Your task to perform on an android device: snooze an email in the gmail app Image 0: 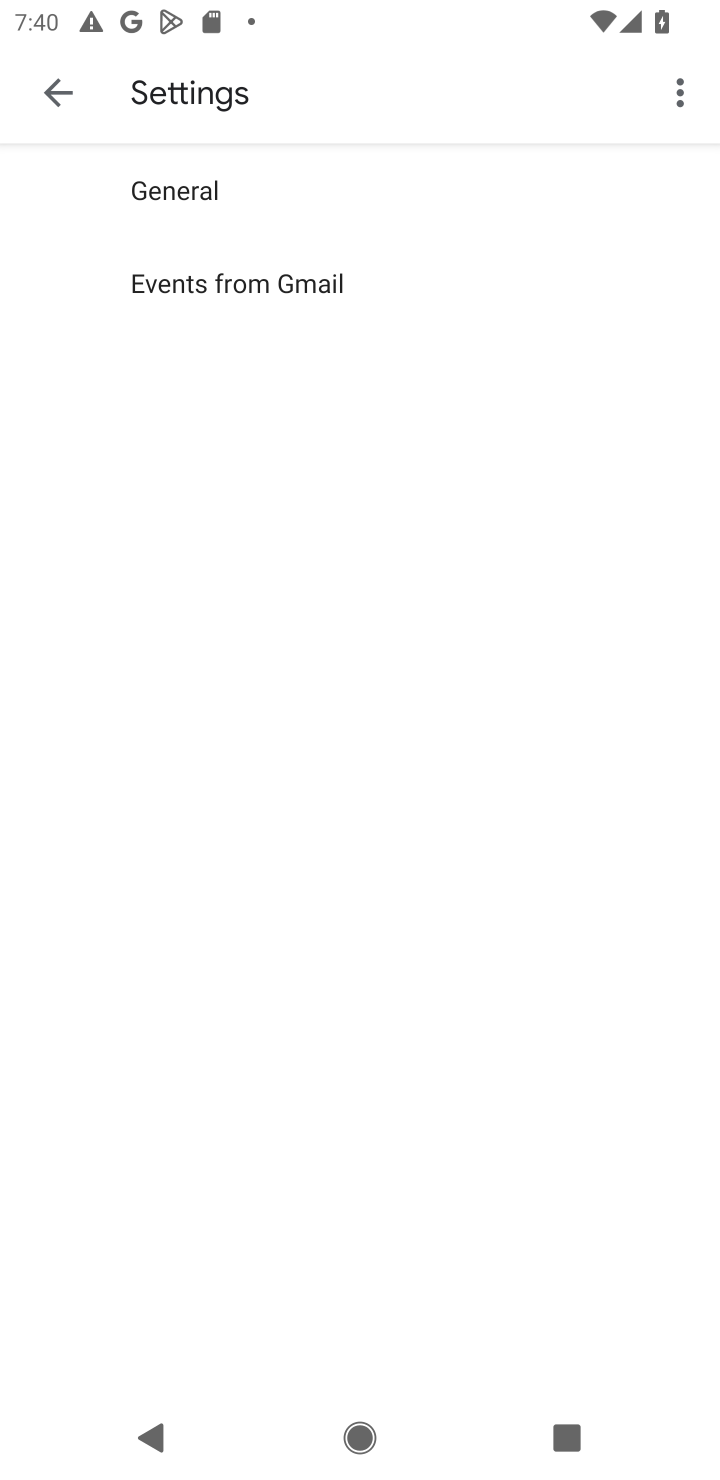
Step 0: press home button
Your task to perform on an android device: snooze an email in the gmail app Image 1: 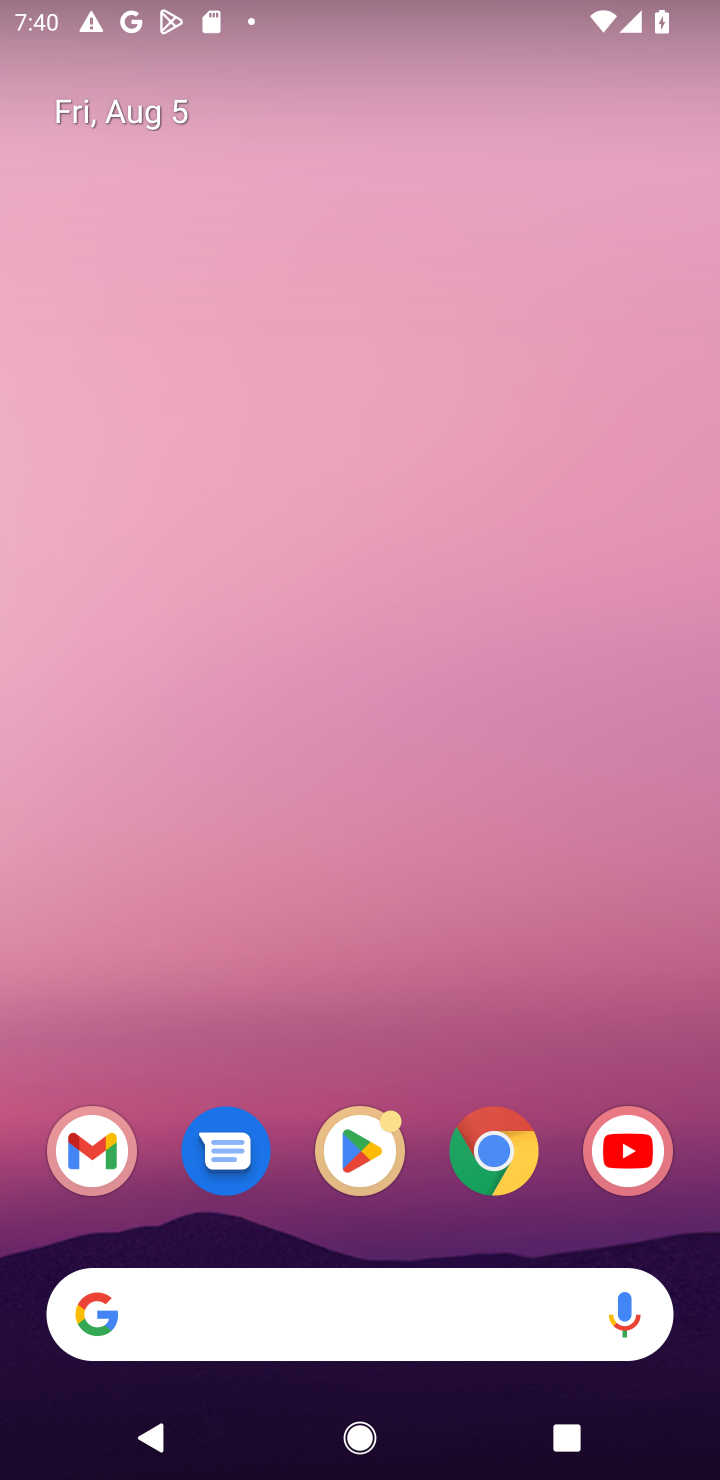
Step 1: click (91, 1145)
Your task to perform on an android device: snooze an email in the gmail app Image 2: 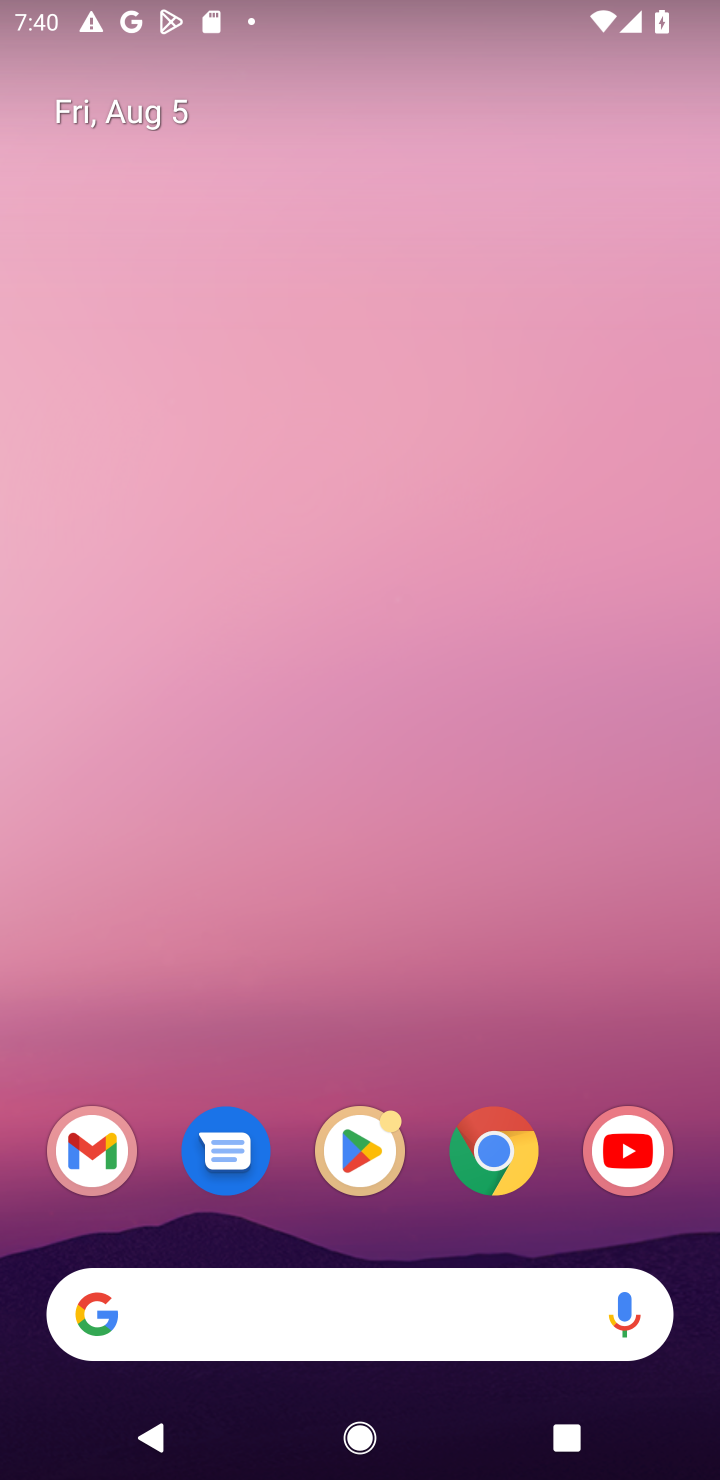
Step 2: click (108, 1160)
Your task to perform on an android device: snooze an email in the gmail app Image 3: 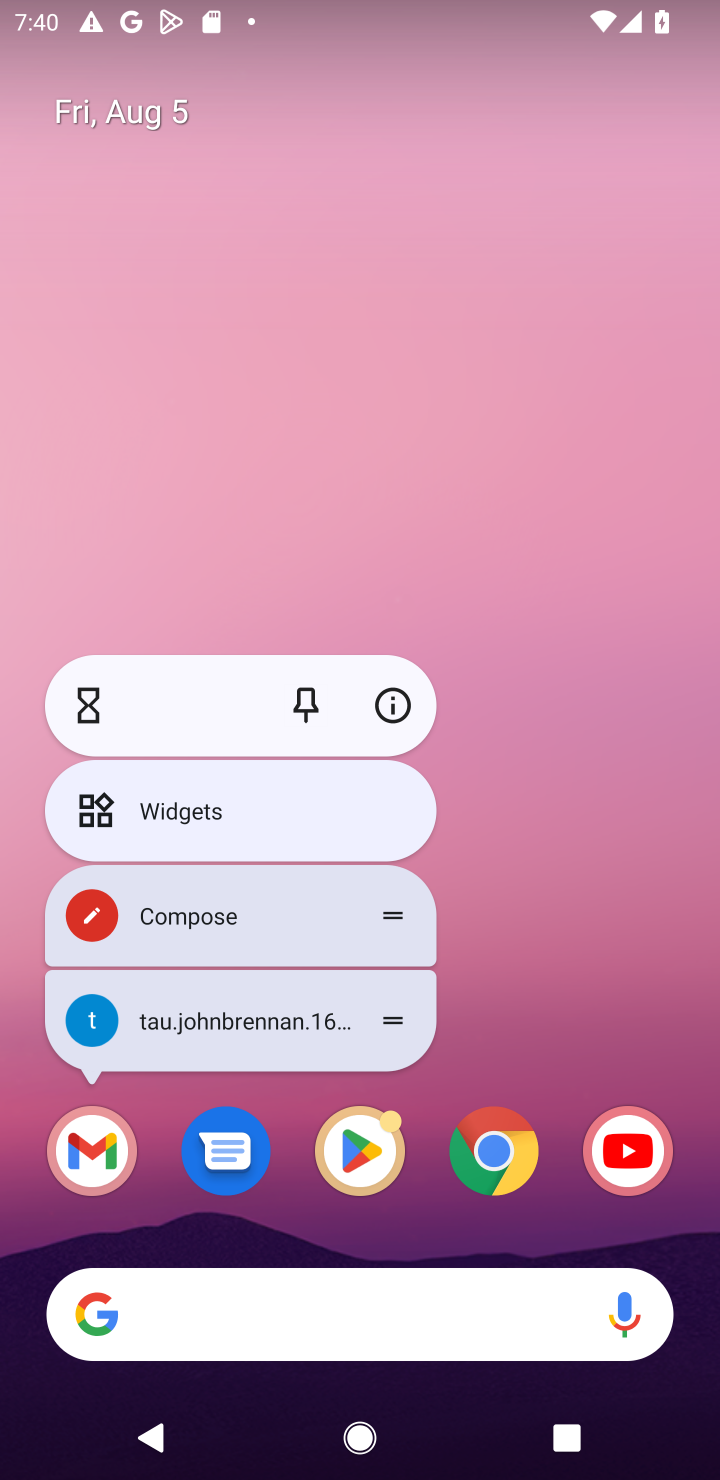
Step 3: click (97, 1182)
Your task to perform on an android device: snooze an email in the gmail app Image 4: 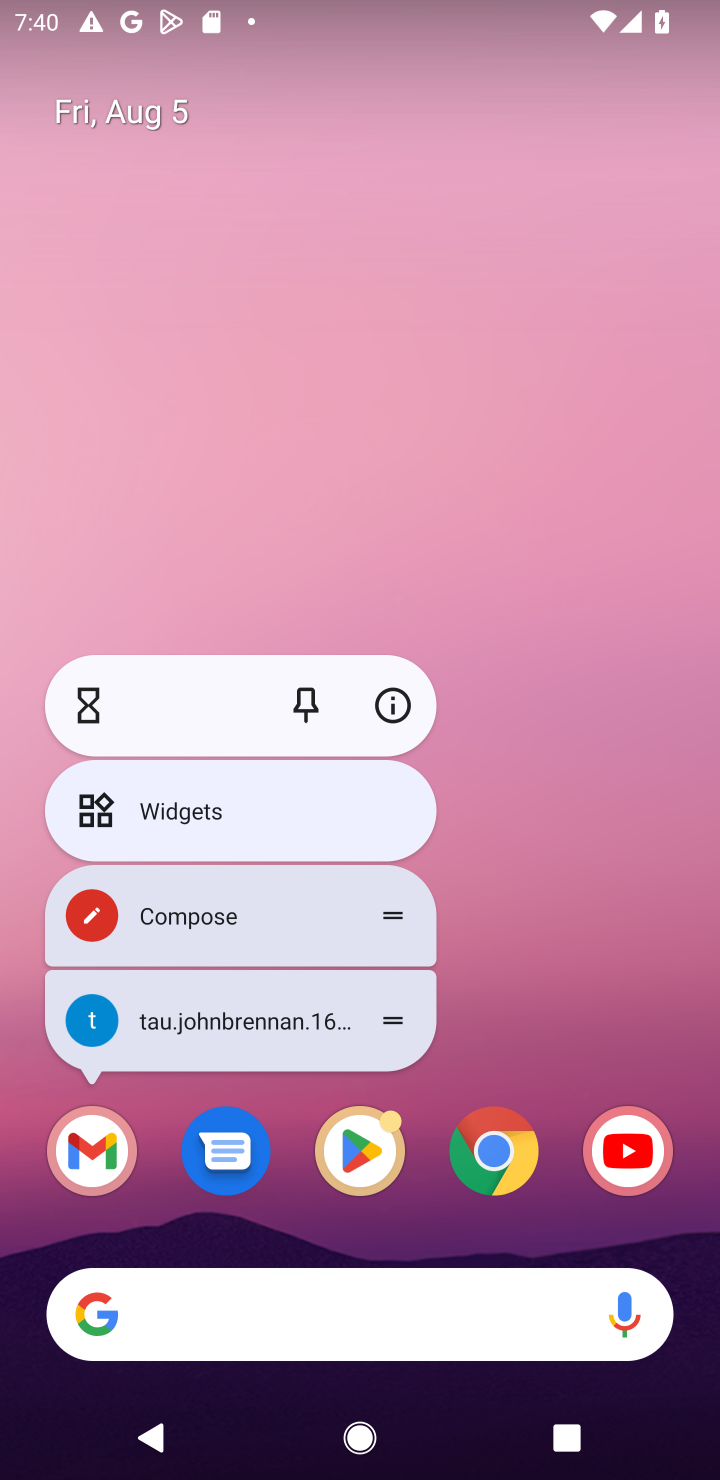
Step 4: click (97, 1182)
Your task to perform on an android device: snooze an email in the gmail app Image 5: 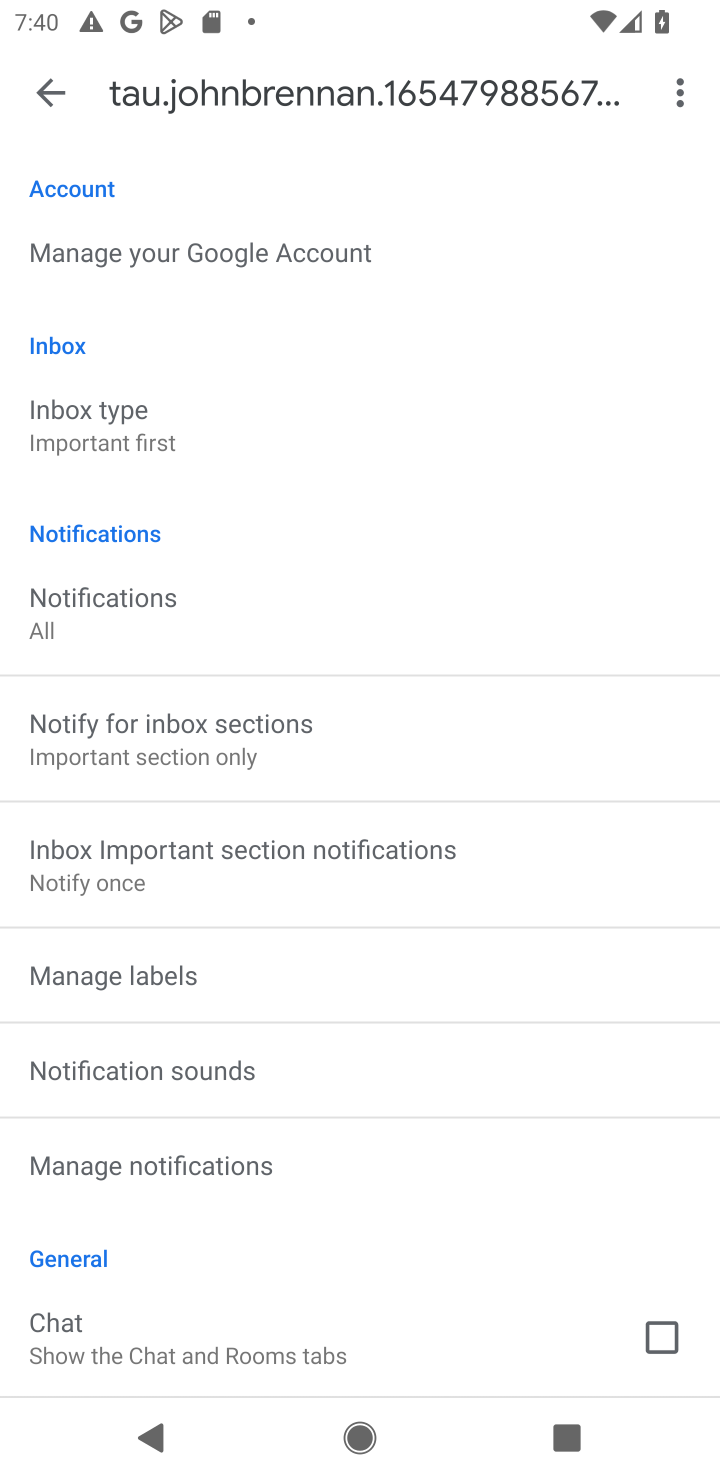
Step 5: click (51, 75)
Your task to perform on an android device: snooze an email in the gmail app Image 6: 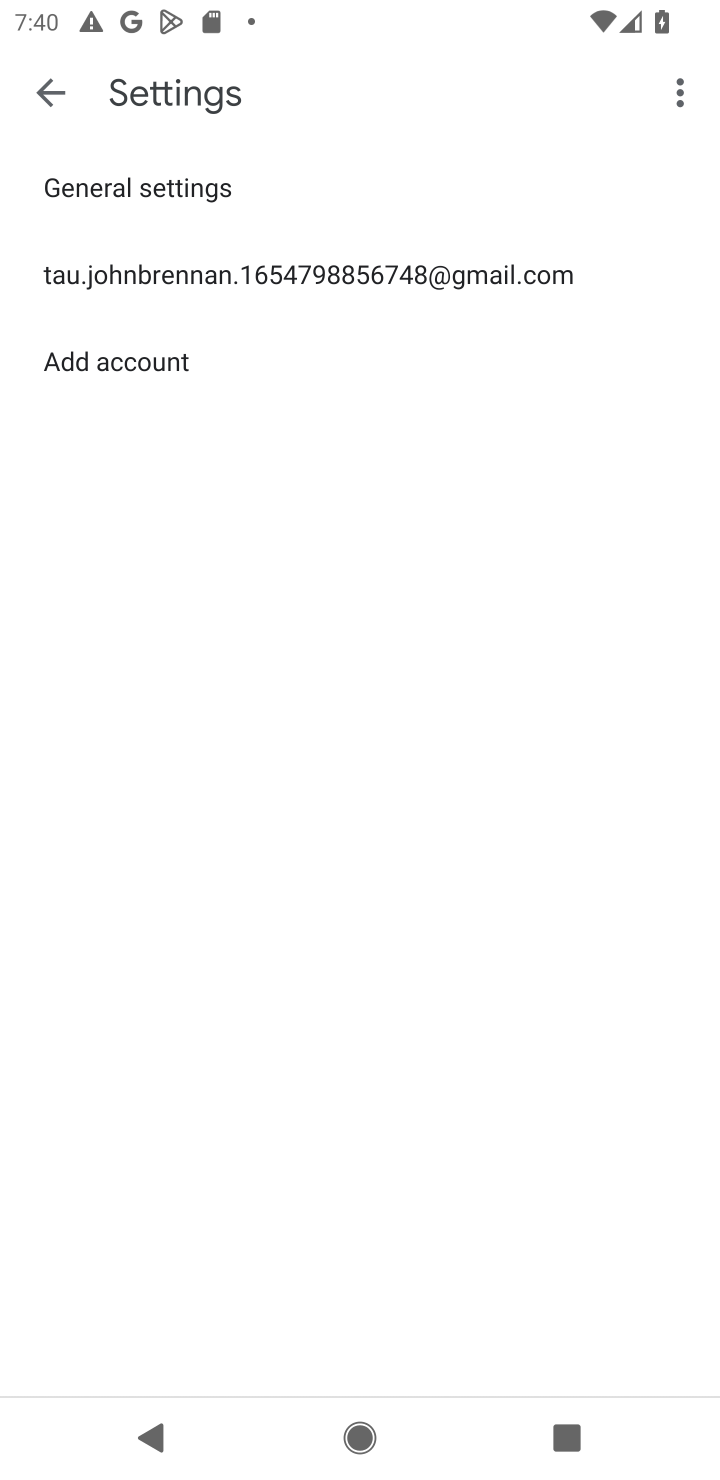
Step 6: click (63, 64)
Your task to perform on an android device: snooze an email in the gmail app Image 7: 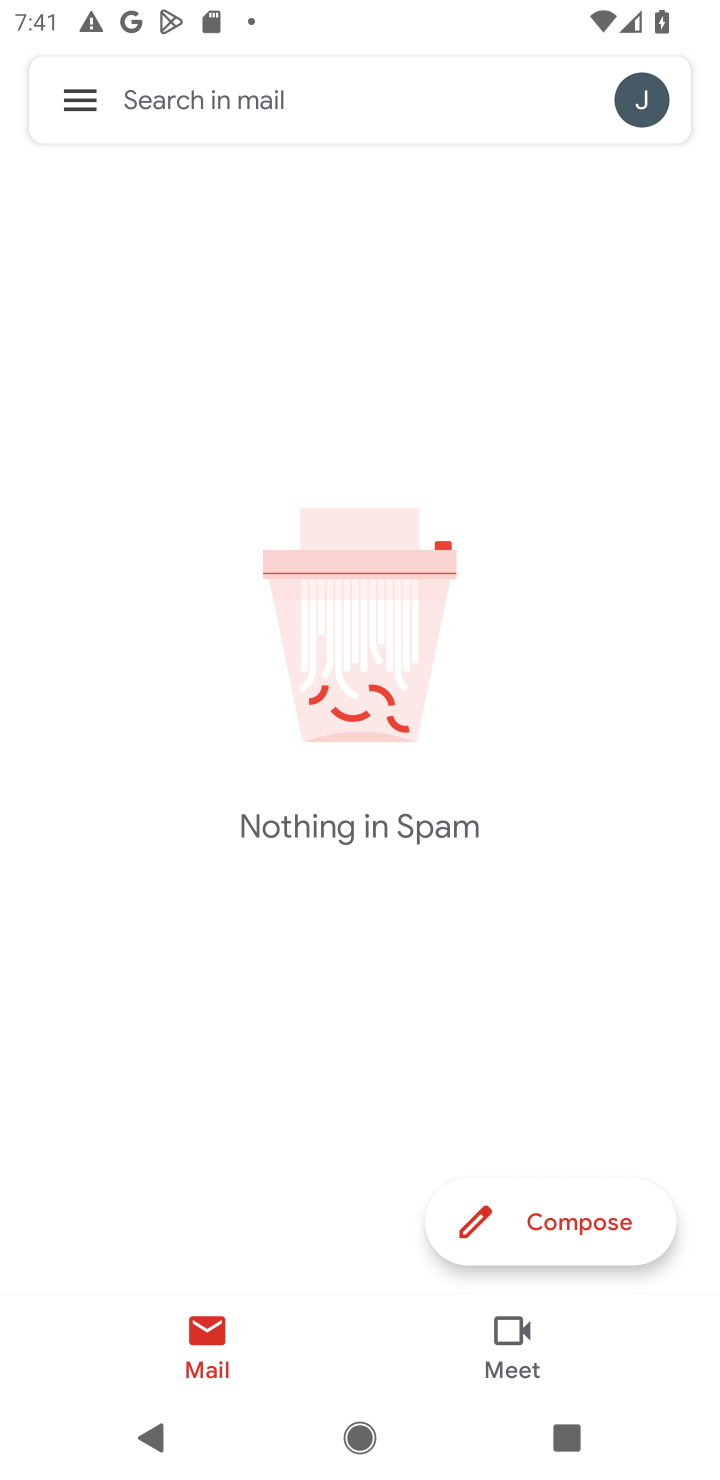
Step 7: click (82, 80)
Your task to perform on an android device: snooze an email in the gmail app Image 8: 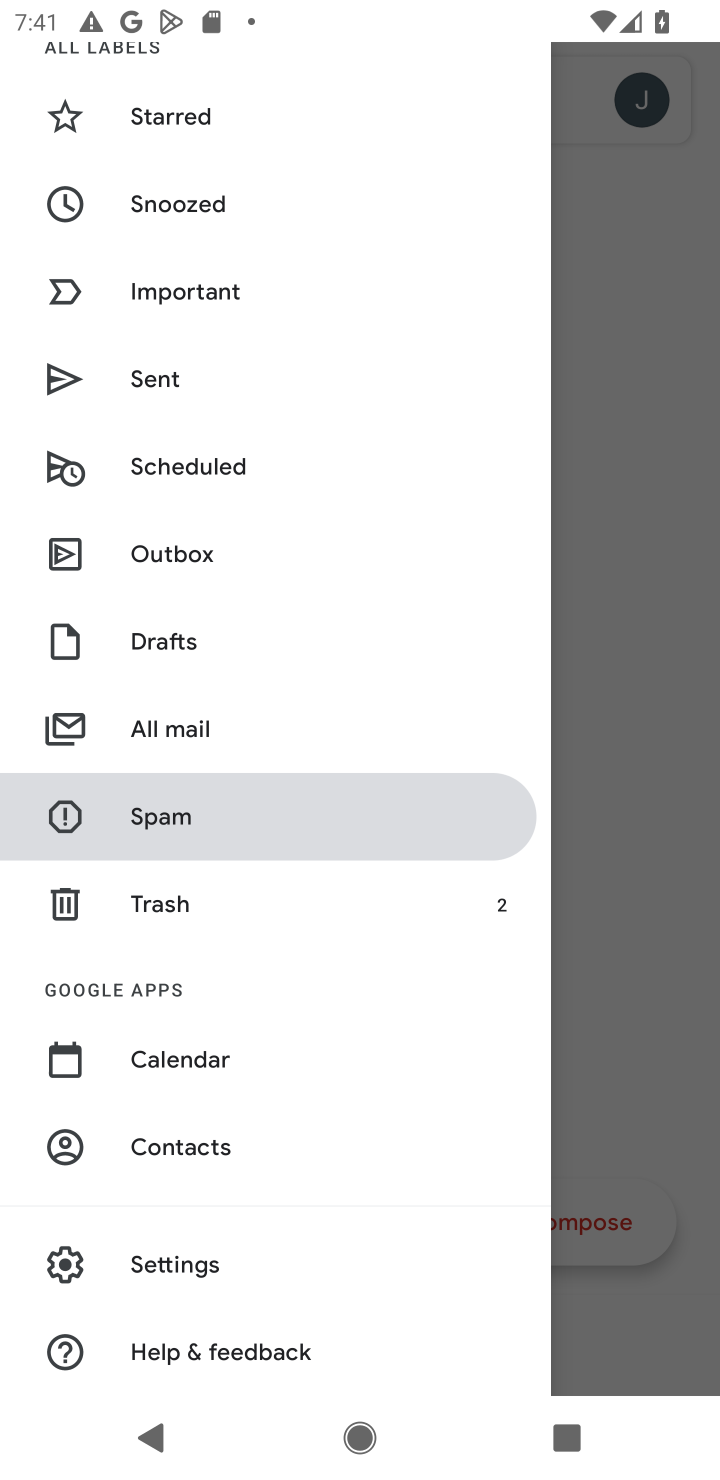
Step 8: drag from (200, 252) to (246, 1176)
Your task to perform on an android device: snooze an email in the gmail app Image 9: 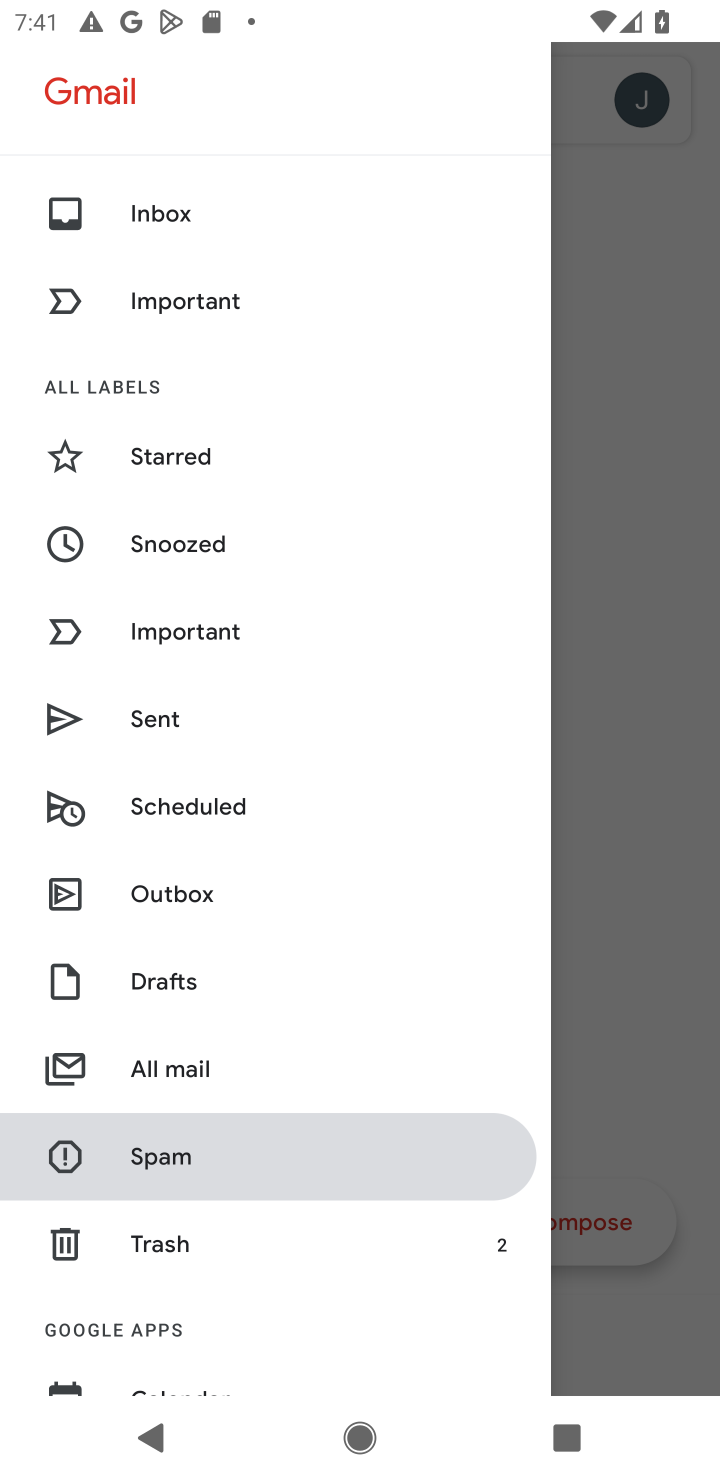
Step 9: click (174, 202)
Your task to perform on an android device: snooze an email in the gmail app Image 10: 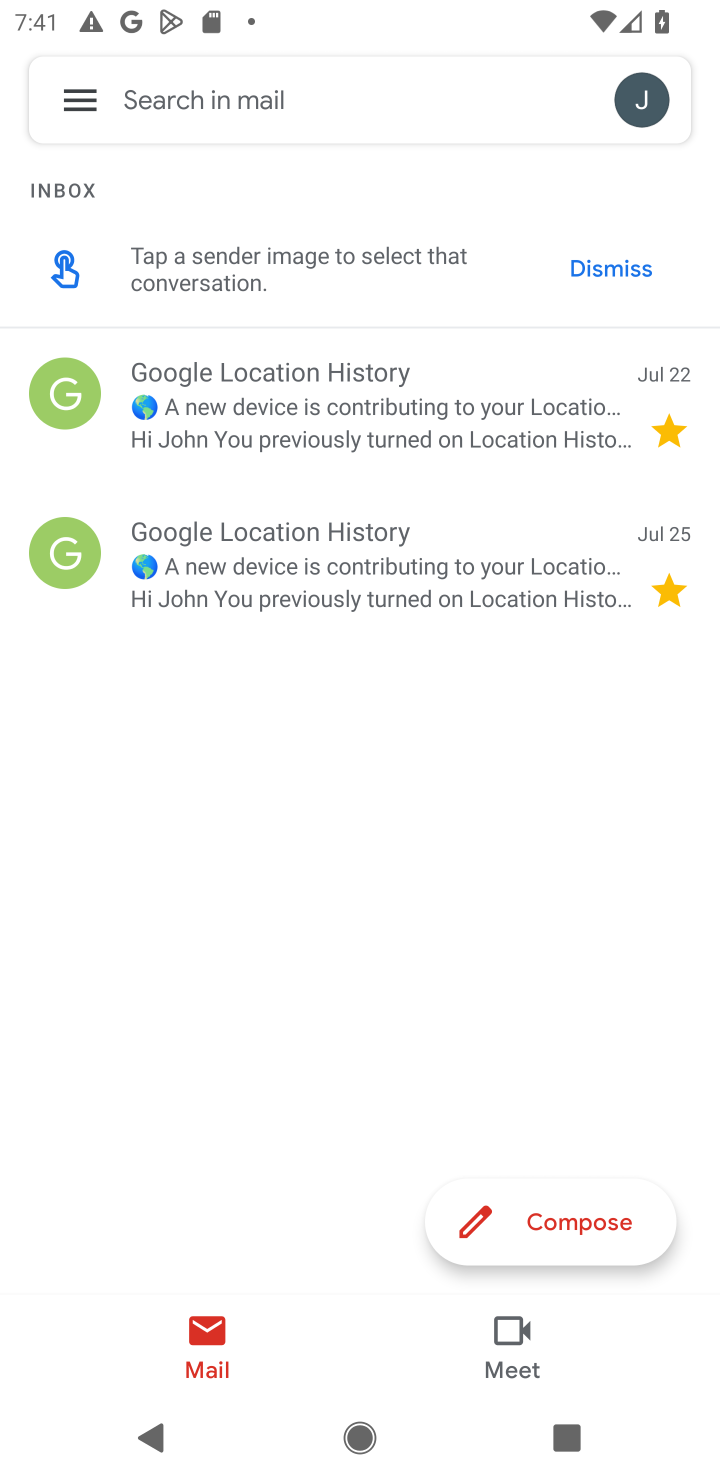
Step 10: click (48, 411)
Your task to perform on an android device: snooze an email in the gmail app Image 11: 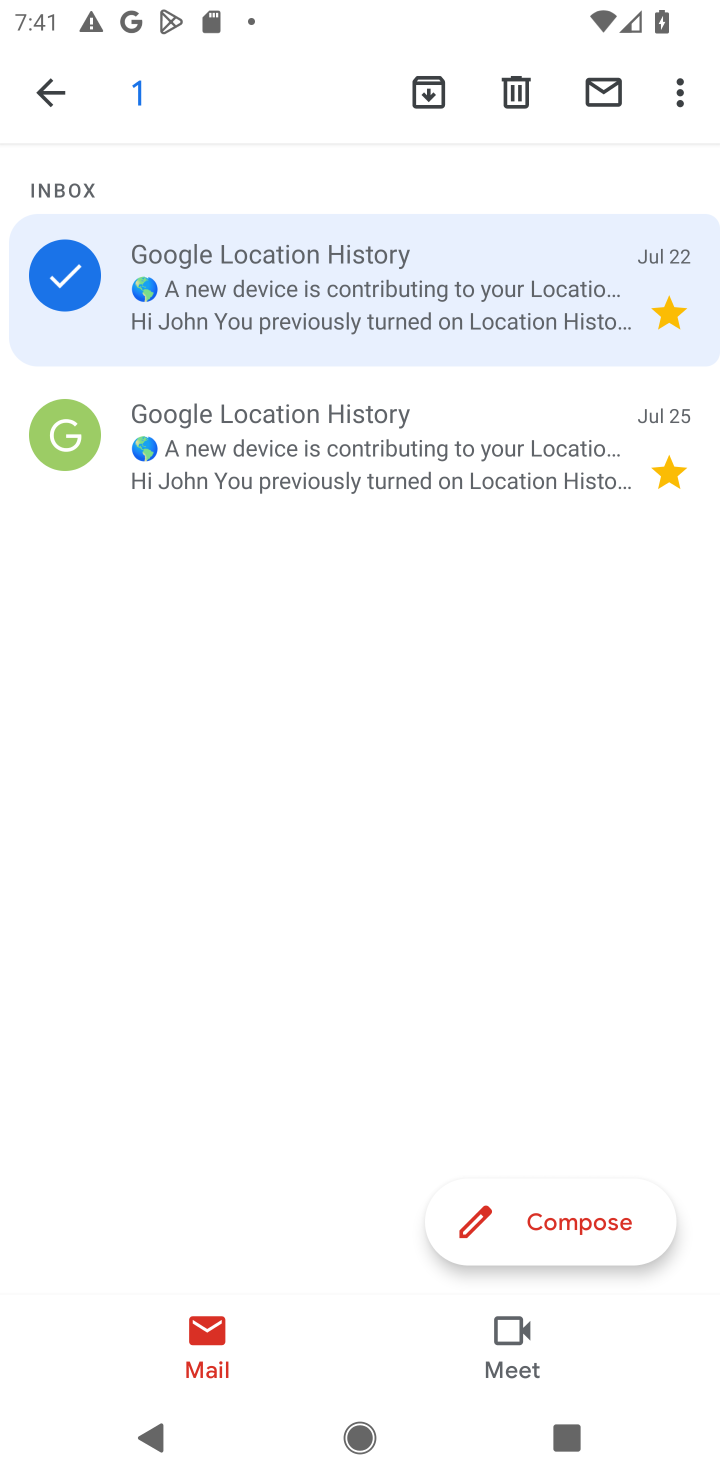
Step 11: click (692, 90)
Your task to perform on an android device: snooze an email in the gmail app Image 12: 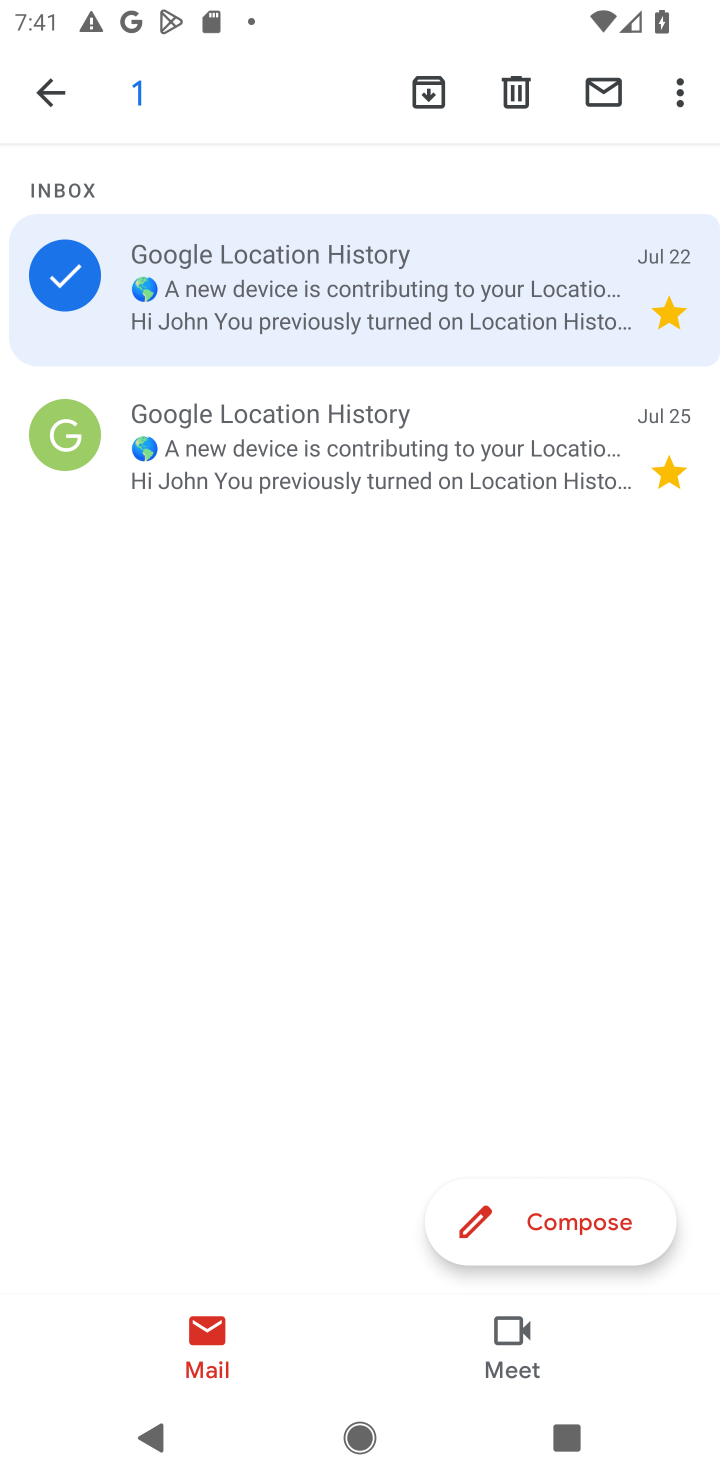
Step 12: click (677, 93)
Your task to perform on an android device: snooze an email in the gmail app Image 13: 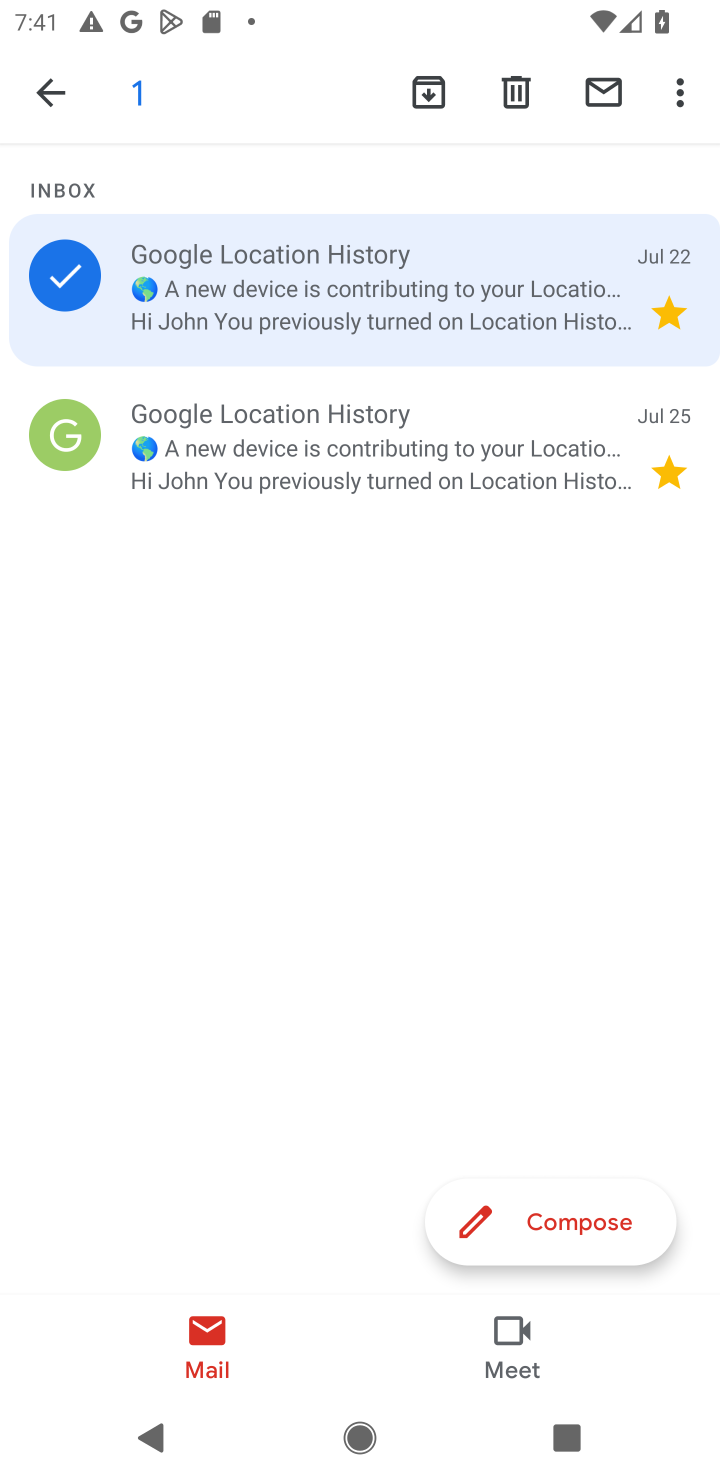
Step 13: click (662, 104)
Your task to perform on an android device: snooze an email in the gmail app Image 14: 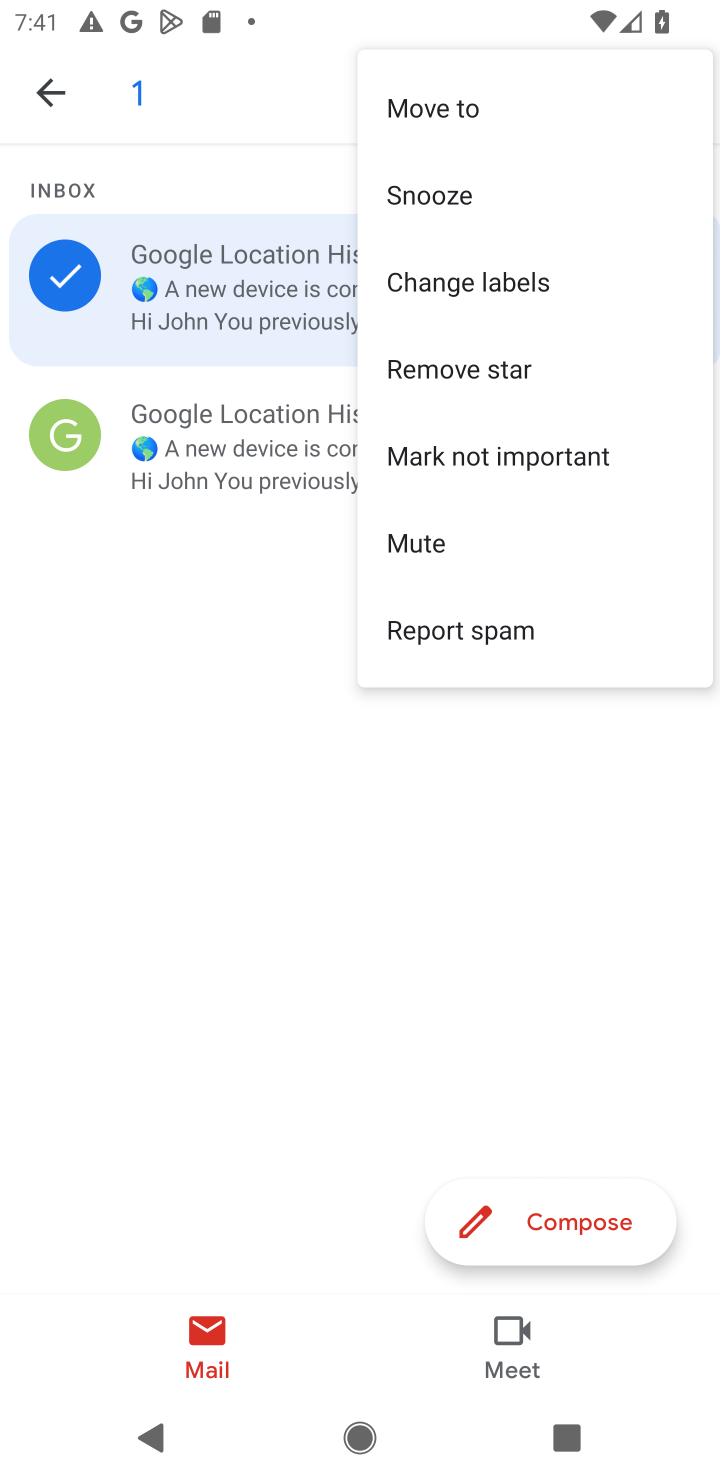
Step 14: click (430, 206)
Your task to perform on an android device: snooze an email in the gmail app Image 15: 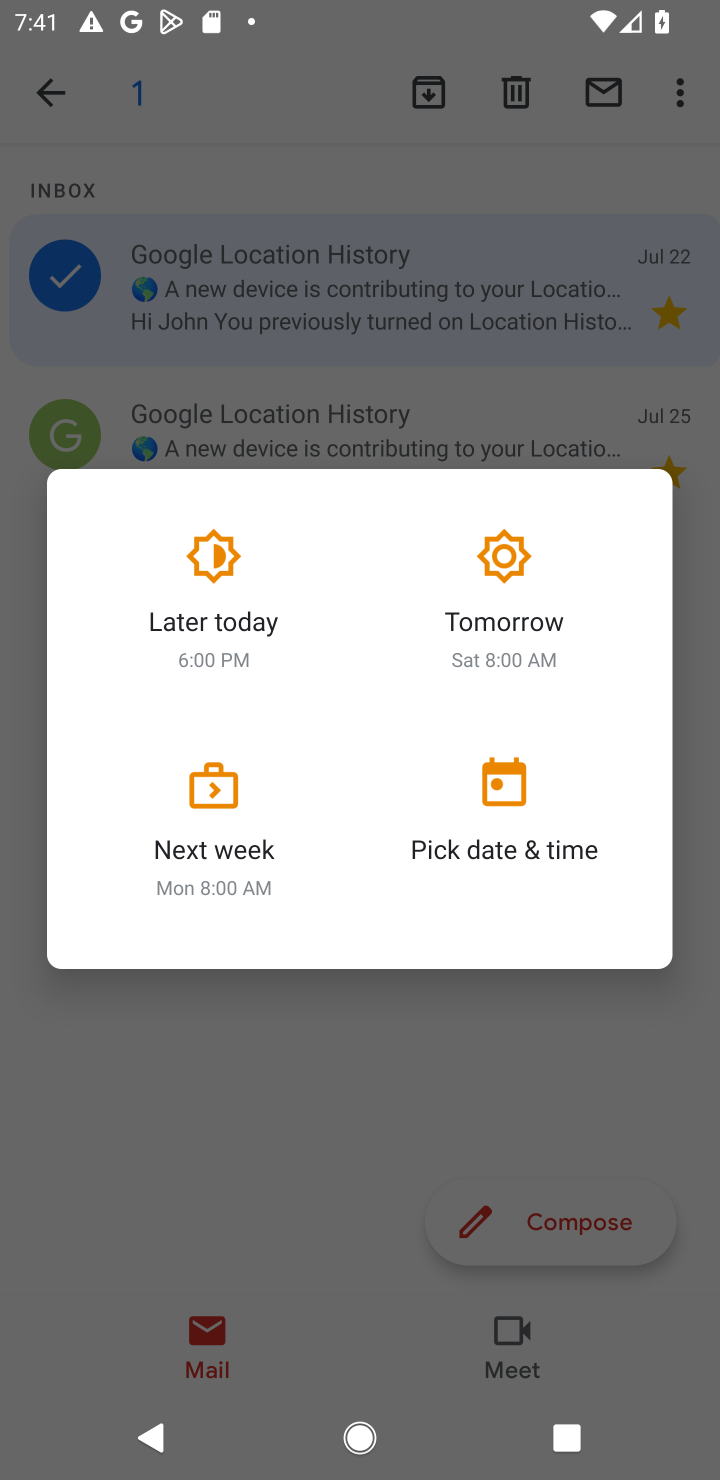
Step 15: click (234, 636)
Your task to perform on an android device: snooze an email in the gmail app Image 16: 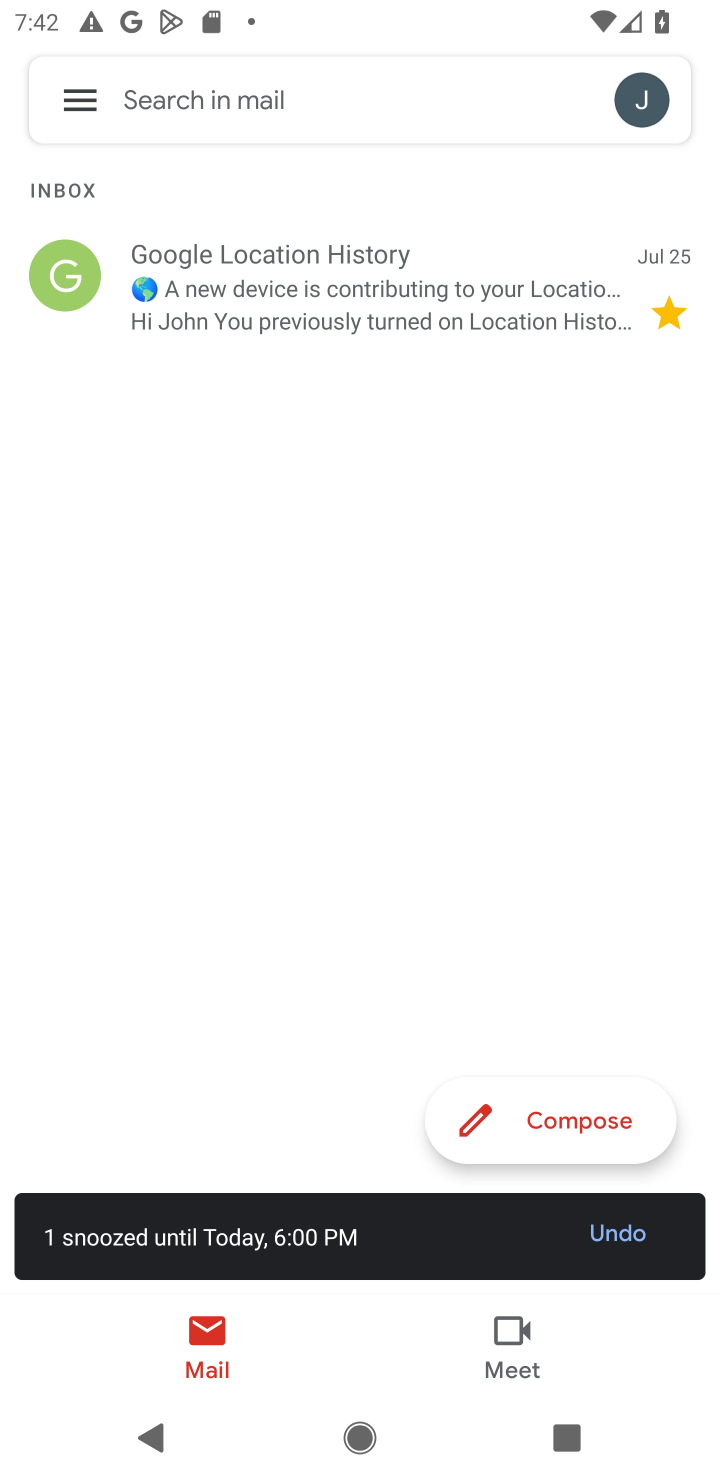
Step 16: task complete